Your task to perform on an android device: Show me productivity apps on the Play Store Image 0: 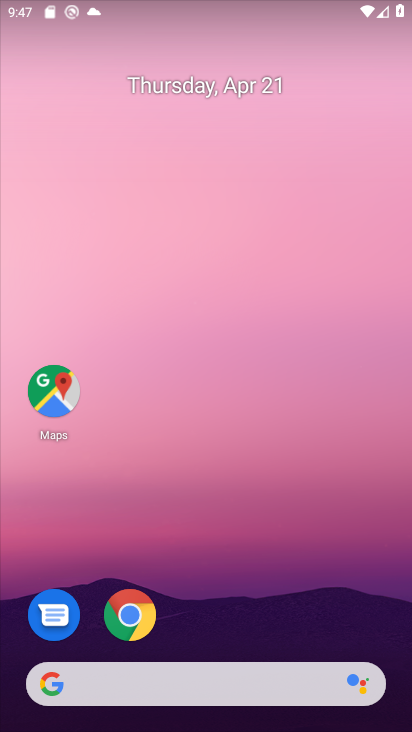
Step 0: drag from (205, 608) to (232, 127)
Your task to perform on an android device: Show me productivity apps on the Play Store Image 1: 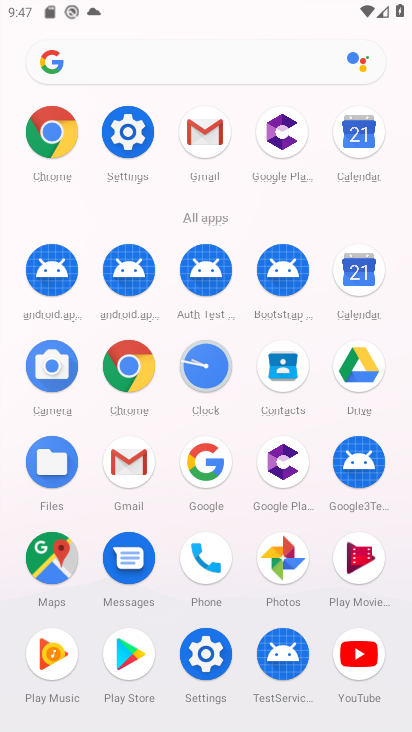
Step 1: drag from (237, 607) to (275, 191)
Your task to perform on an android device: Show me productivity apps on the Play Store Image 2: 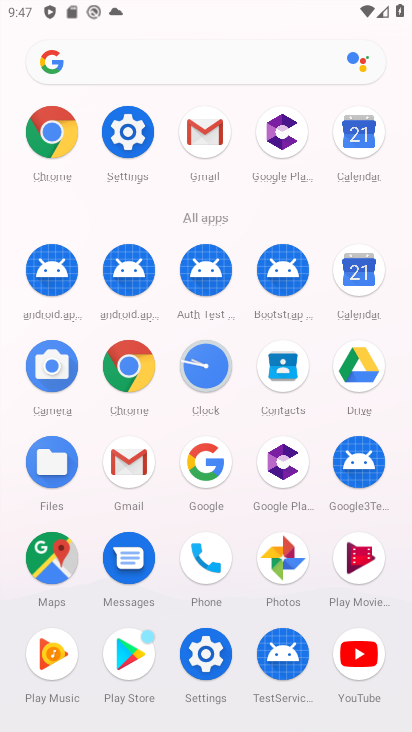
Step 2: click (128, 645)
Your task to perform on an android device: Show me productivity apps on the Play Store Image 3: 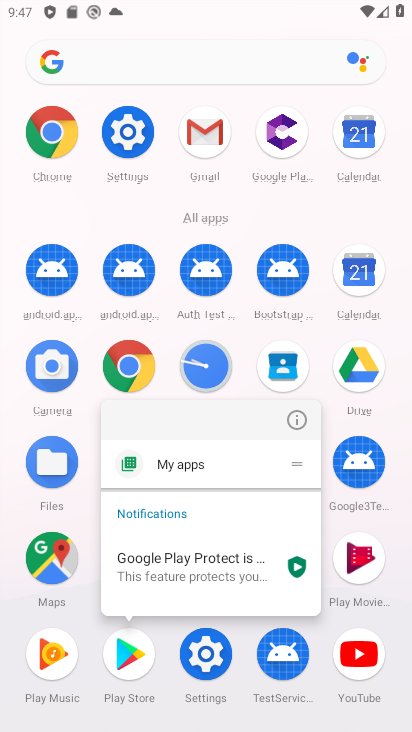
Step 3: click (122, 654)
Your task to perform on an android device: Show me productivity apps on the Play Store Image 4: 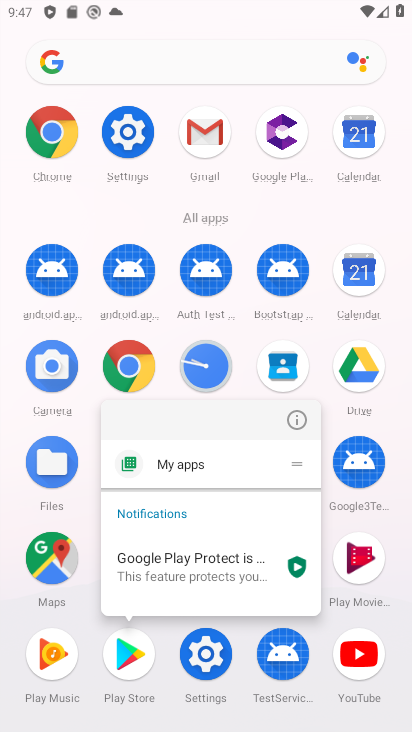
Step 4: click (122, 654)
Your task to perform on an android device: Show me productivity apps on the Play Store Image 5: 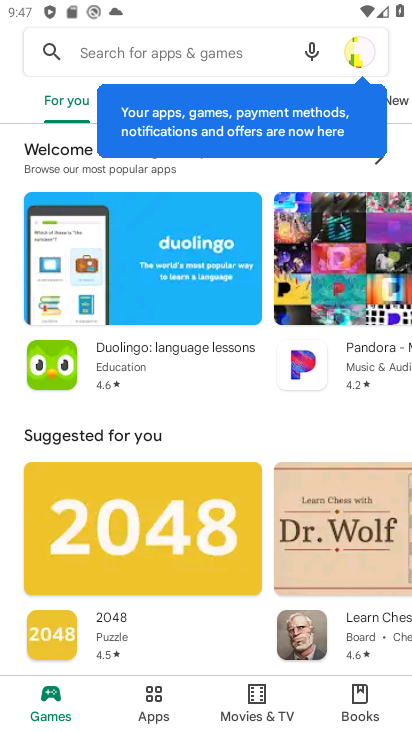
Step 5: click (211, 548)
Your task to perform on an android device: Show me productivity apps on the Play Store Image 6: 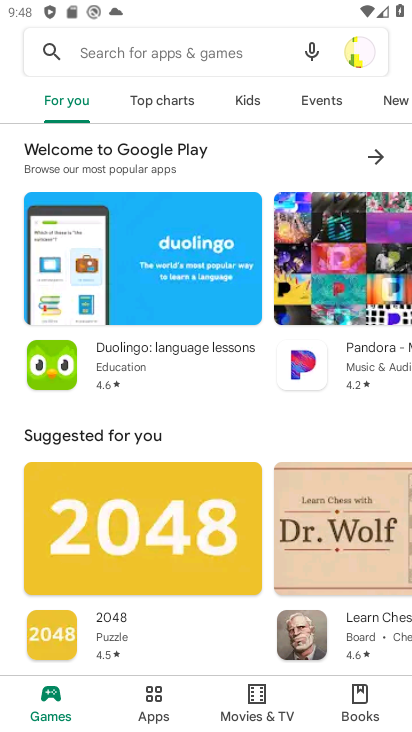
Step 6: click (147, 694)
Your task to perform on an android device: Show me productivity apps on the Play Store Image 7: 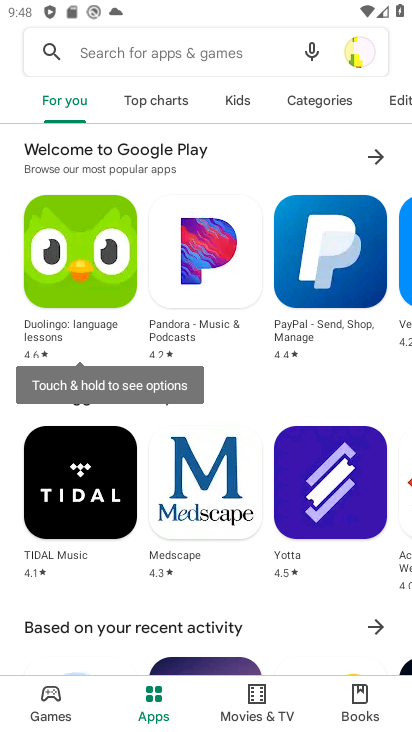
Step 7: click (322, 100)
Your task to perform on an android device: Show me productivity apps on the Play Store Image 8: 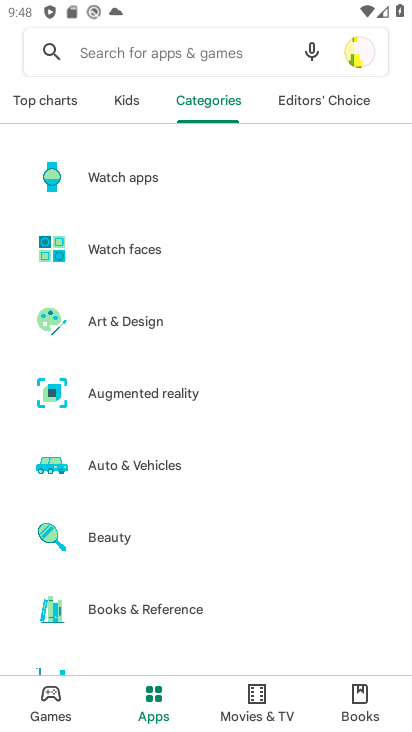
Step 8: drag from (189, 545) to (236, 44)
Your task to perform on an android device: Show me productivity apps on the Play Store Image 9: 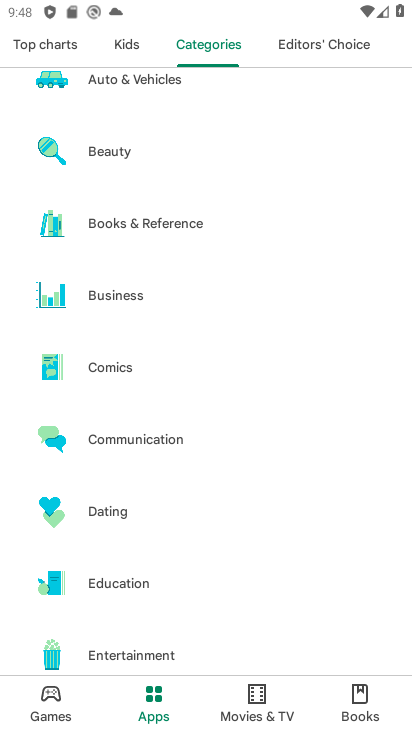
Step 9: drag from (178, 653) to (238, 89)
Your task to perform on an android device: Show me productivity apps on the Play Store Image 10: 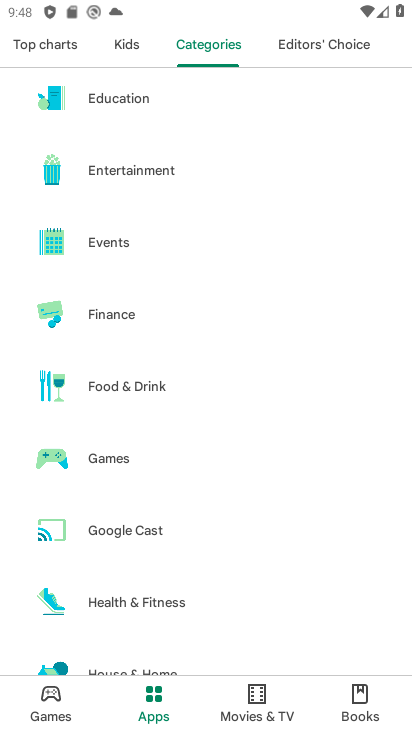
Step 10: drag from (172, 588) to (202, 54)
Your task to perform on an android device: Show me productivity apps on the Play Store Image 11: 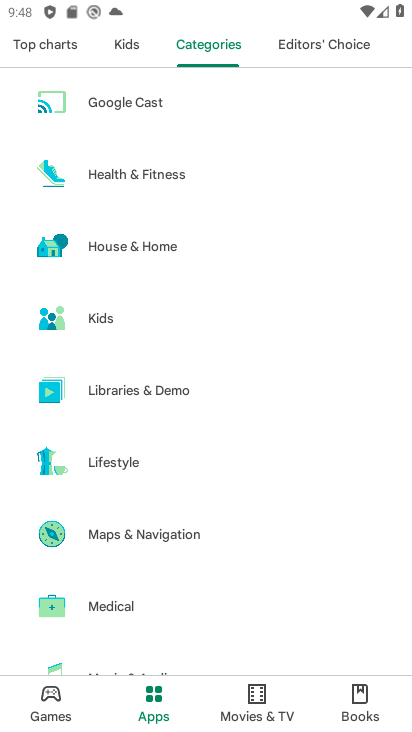
Step 11: drag from (160, 624) to (221, 0)
Your task to perform on an android device: Show me productivity apps on the Play Store Image 12: 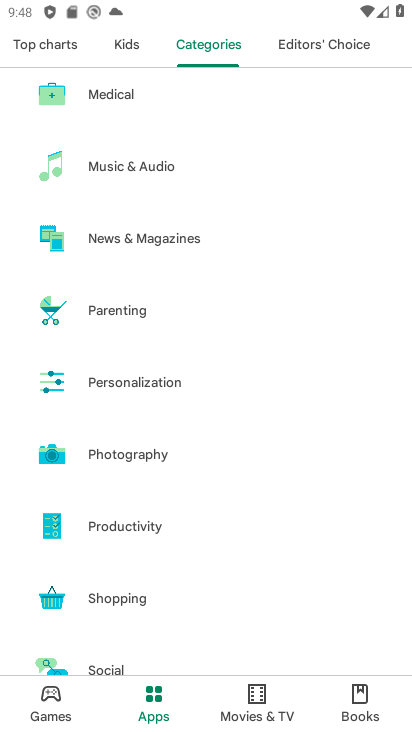
Step 12: click (173, 516)
Your task to perform on an android device: Show me productivity apps on the Play Store Image 13: 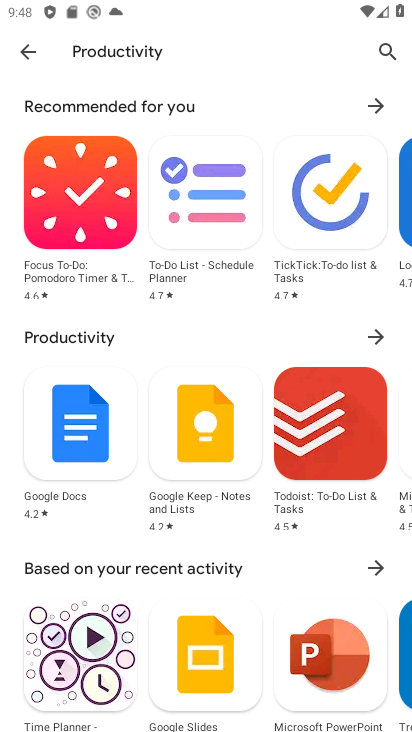
Step 13: task complete